Your task to perform on an android device: open app "Viber Messenger" (install if not already installed) and enter user name: "blameless@icloud.com" and password: "Yoknapatawpha" Image 0: 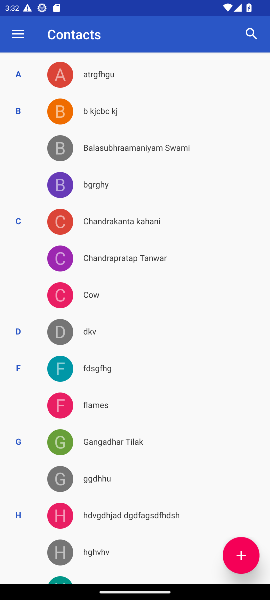
Step 0: press home button
Your task to perform on an android device: open app "Viber Messenger" (install if not already installed) and enter user name: "blameless@icloud.com" and password: "Yoknapatawpha" Image 1: 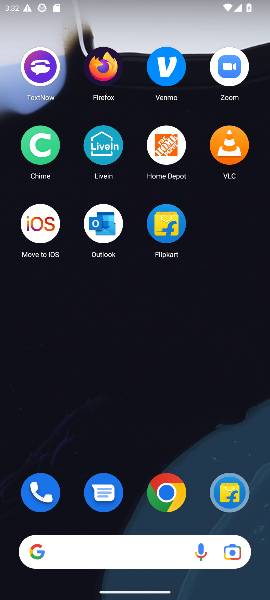
Step 1: drag from (140, 514) to (164, 166)
Your task to perform on an android device: open app "Viber Messenger" (install if not already installed) and enter user name: "blameless@icloud.com" and password: "Yoknapatawpha" Image 2: 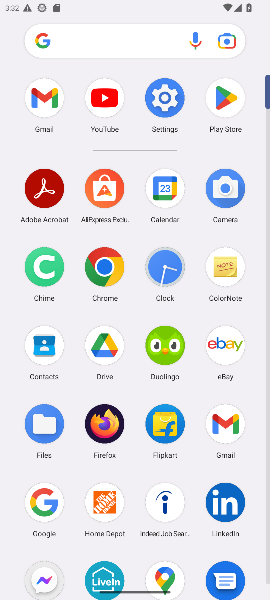
Step 2: click (219, 117)
Your task to perform on an android device: open app "Viber Messenger" (install if not already installed) and enter user name: "blameless@icloud.com" and password: "Yoknapatawpha" Image 3: 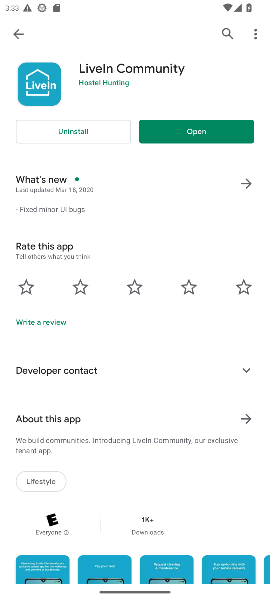
Step 3: click (228, 36)
Your task to perform on an android device: open app "Viber Messenger" (install if not already installed) and enter user name: "blameless@icloud.com" and password: "Yoknapatawpha" Image 4: 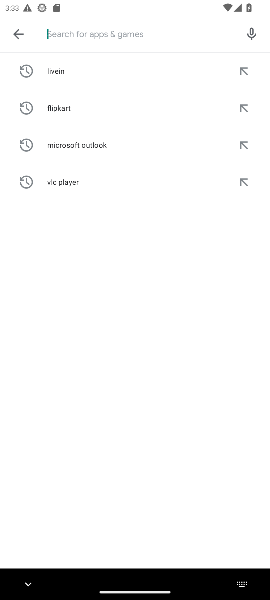
Step 4: type "vider"
Your task to perform on an android device: open app "Viber Messenger" (install if not already installed) and enter user name: "blameless@icloud.com" and password: "Yoknapatawpha" Image 5: 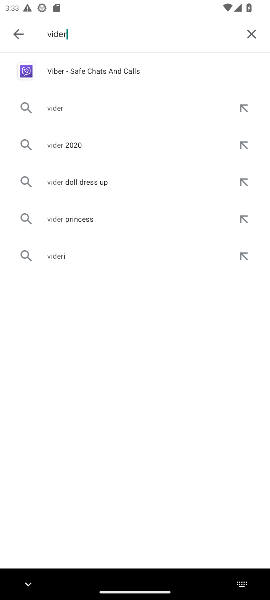
Step 5: click (107, 74)
Your task to perform on an android device: open app "Viber Messenger" (install if not already installed) and enter user name: "blameless@icloud.com" and password: "Yoknapatawpha" Image 6: 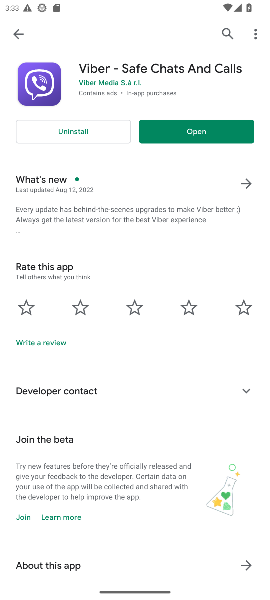
Step 6: click (188, 127)
Your task to perform on an android device: open app "Viber Messenger" (install if not already installed) and enter user name: "blameless@icloud.com" and password: "Yoknapatawpha" Image 7: 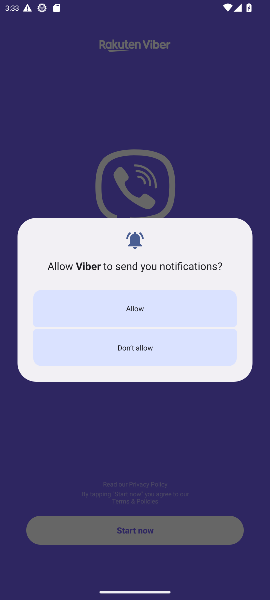
Step 7: click (145, 295)
Your task to perform on an android device: open app "Viber Messenger" (install if not already installed) and enter user name: "blameless@icloud.com" and password: "Yoknapatawpha" Image 8: 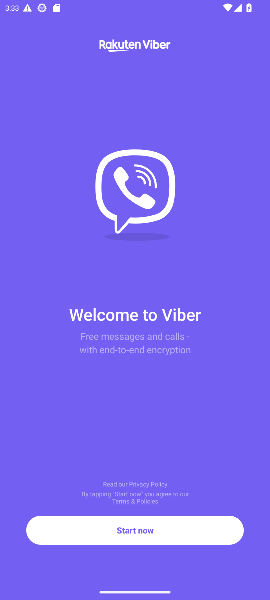
Step 8: click (114, 519)
Your task to perform on an android device: open app "Viber Messenger" (install if not already installed) and enter user name: "blameless@icloud.com" and password: "Yoknapatawpha" Image 9: 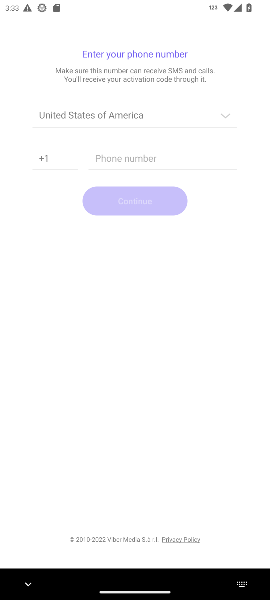
Step 9: click (176, 138)
Your task to perform on an android device: open app "Viber Messenger" (install if not already installed) and enter user name: "blameless@icloud.com" and password: "Yoknapatawpha" Image 10: 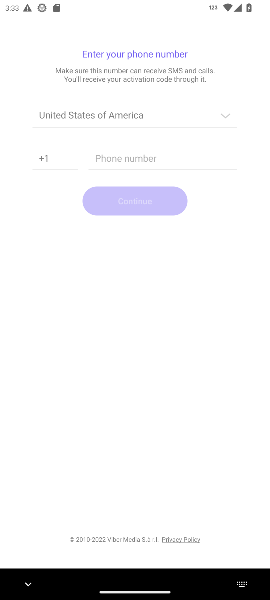
Step 10: press back button
Your task to perform on an android device: open app "Viber Messenger" (install if not already installed) and enter user name: "blameless@icloud.com" and password: "Yoknapatawpha" Image 11: 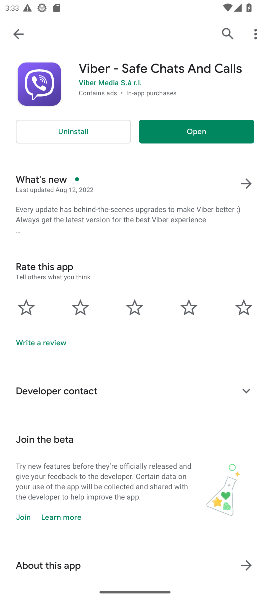
Step 11: click (201, 129)
Your task to perform on an android device: open app "Viber Messenger" (install if not already installed) and enter user name: "blameless@icloud.com" and password: "Yoknapatawpha" Image 12: 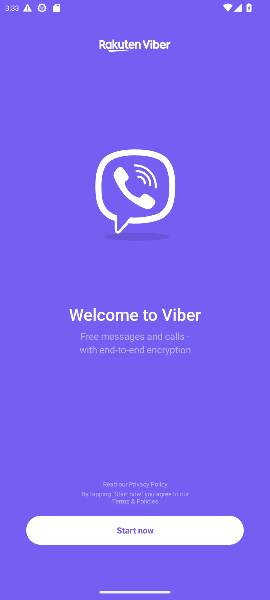
Step 12: task complete